Your task to perform on an android device: change text size in settings app Image 0: 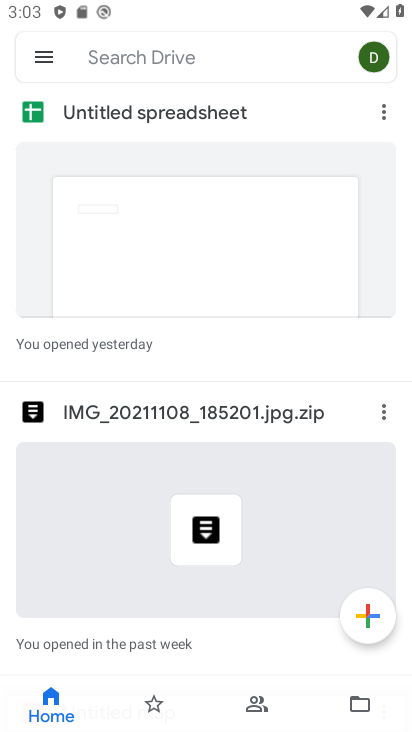
Step 0: press back button
Your task to perform on an android device: change text size in settings app Image 1: 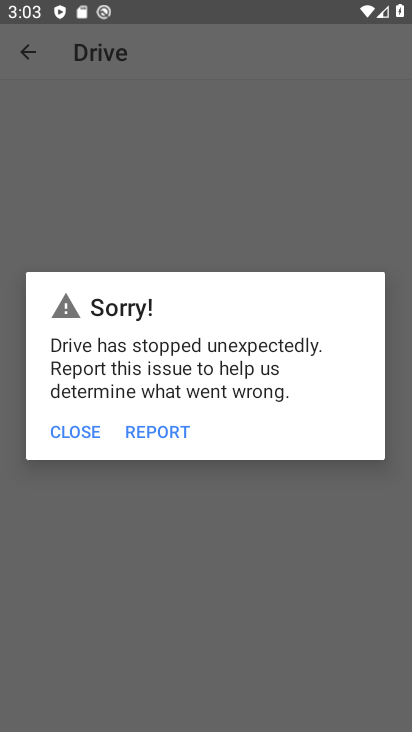
Step 1: click (70, 433)
Your task to perform on an android device: change text size in settings app Image 2: 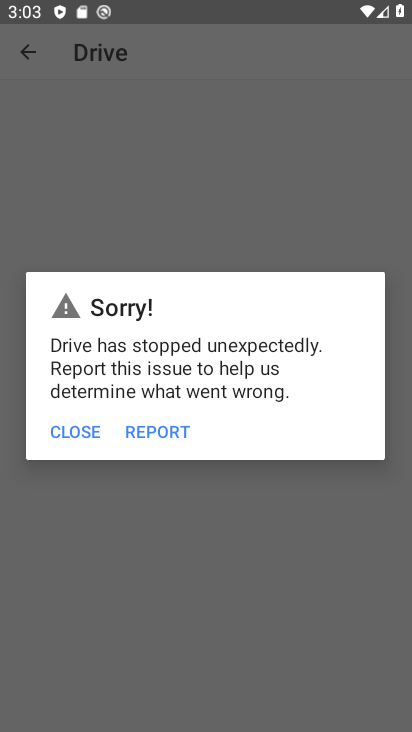
Step 2: click (70, 433)
Your task to perform on an android device: change text size in settings app Image 3: 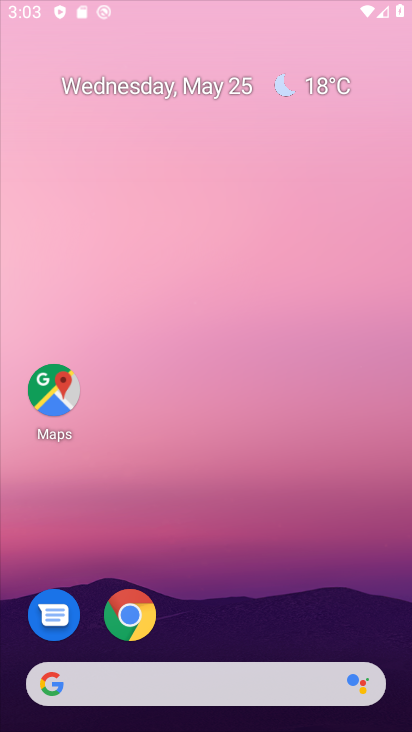
Step 3: click (68, 430)
Your task to perform on an android device: change text size in settings app Image 4: 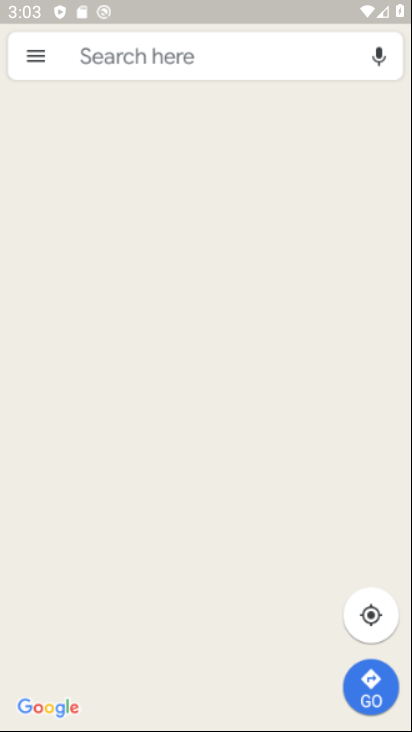
Step 4: drag from (264, 560) to (176, 213)
Your task to perform on an android device: change text size in settings app Image 5: 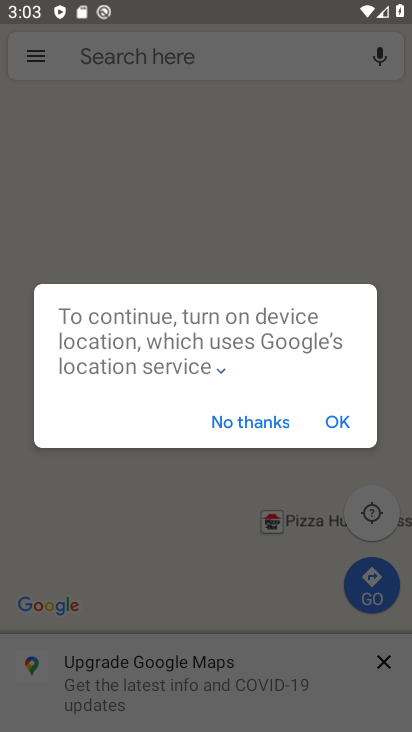
Step 5: click (335, 419)
Your task to perform on an android device: change text size in settings app Image 6: 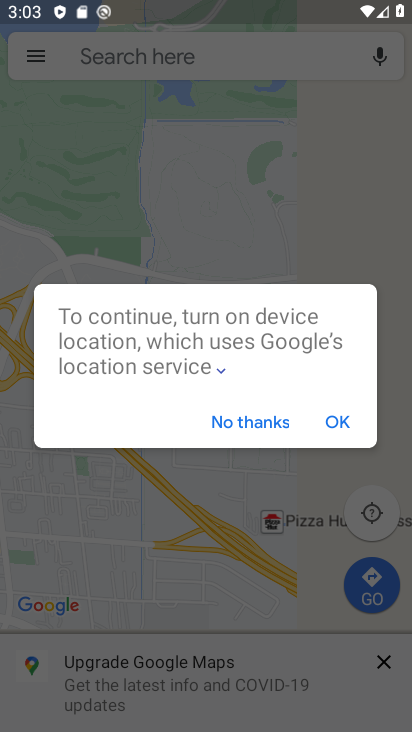
Step 6: drag from (337, 419) to (382, 420)
Your task to perform on an android device: change text size in settings app Image 7: 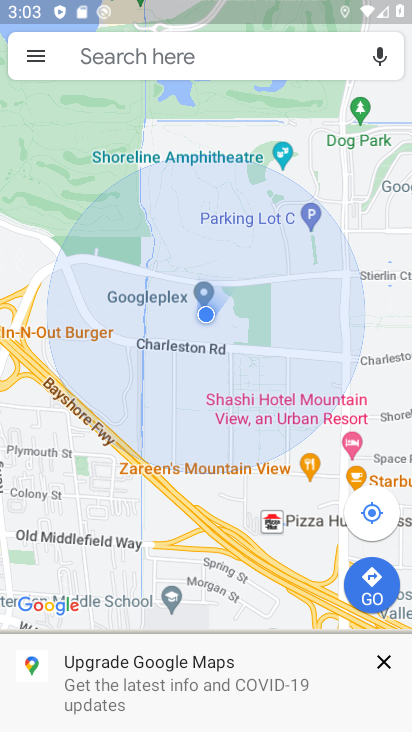
Step 7: press back button
Your task to perform on an android device: change text size in settings app Image 8: 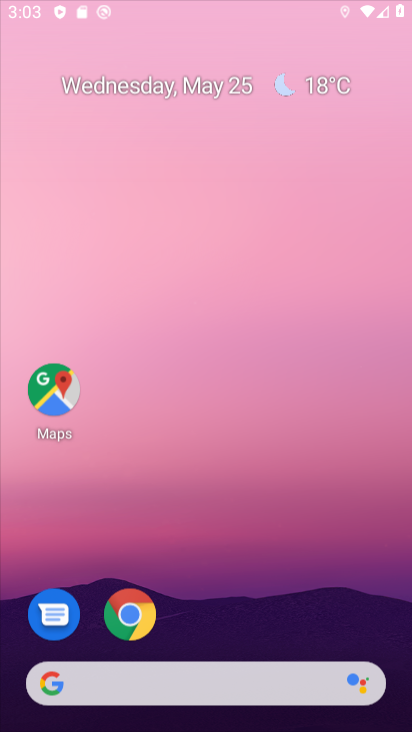
Step 8: press home button
Your task to perform on an android device: change text size in settings app Image 9: 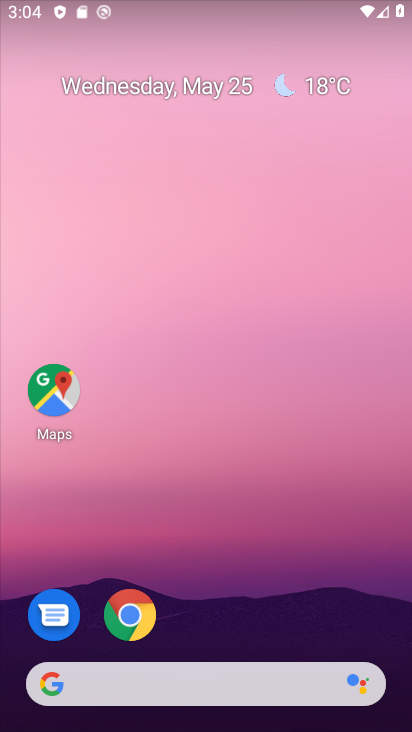
Step 9: drag from (239, 699) to (133, 46)
Your task to perform on an android device: change text size in settings app Image 10: 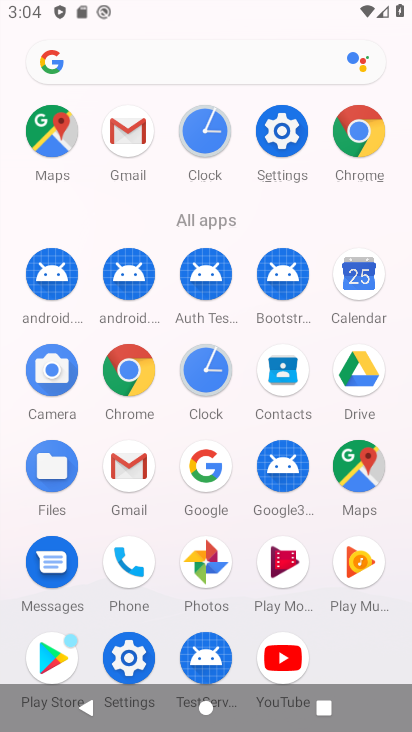
Step 10: click (273, 135)
Your task to perform on an android device: change text size in settings app Image 11: 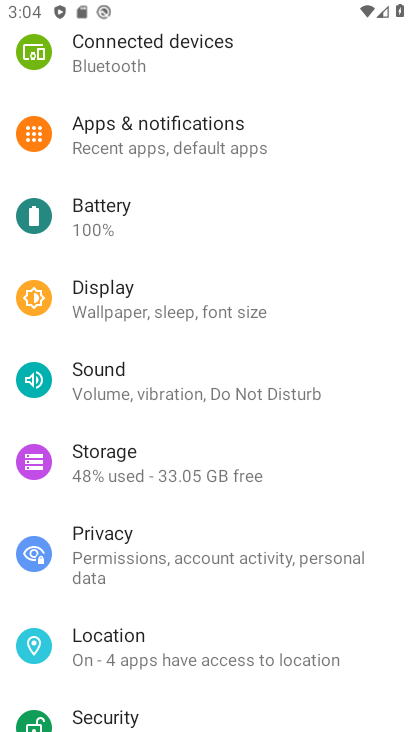
Step 11: drag from (157, 497) to (154, 151)
Your task to perform on an android device: change text size in settings app Image 12: 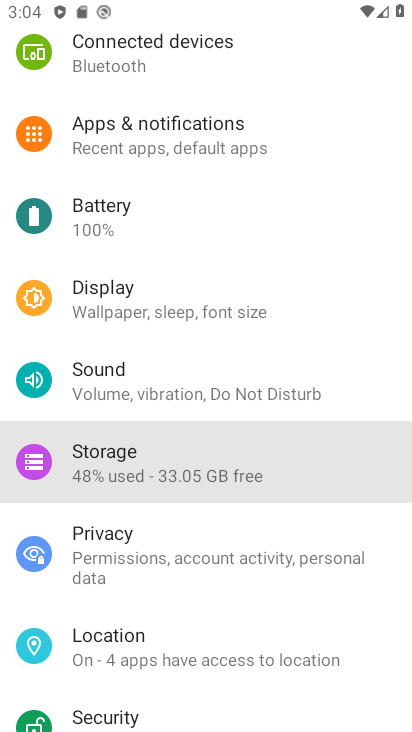
Step 12: drag from (190, 426) to (163, 128)
Your task to perform on an android device: change text size in settings app Image 13: 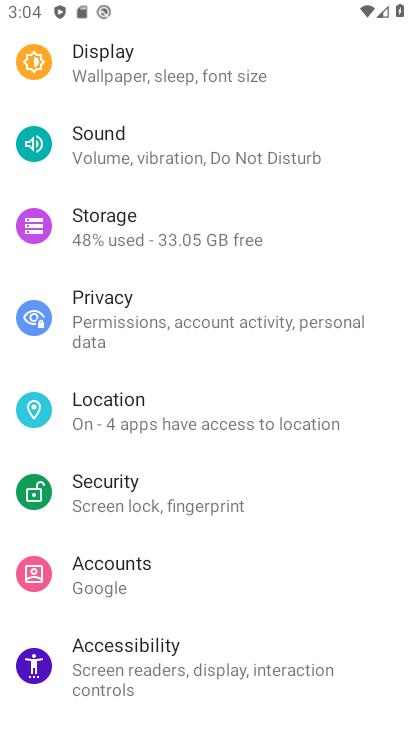
Step 13: drag from (123, 221) to (248, 561)
Your task to perform on an android device: change text size in settings app Image 14: 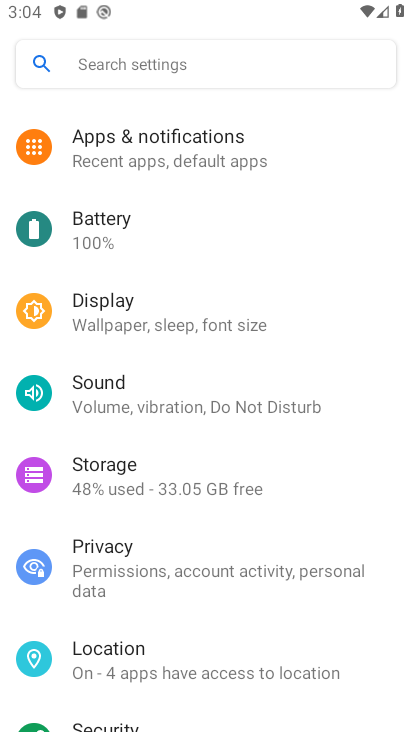
Step 14: drag from (208, 287) to (208, 586)
Your task to perform on an android device: change text size in settings app Image 15: 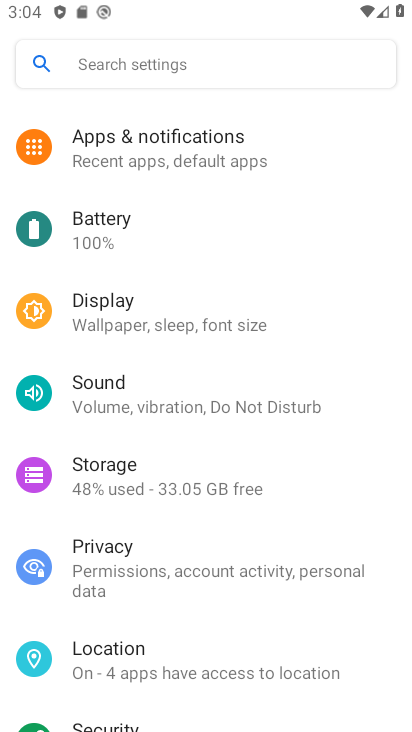
Step 15: drag from (174, 269) to (222, 631)
Your task to perform on an android device: change text size in settings app Image 16: 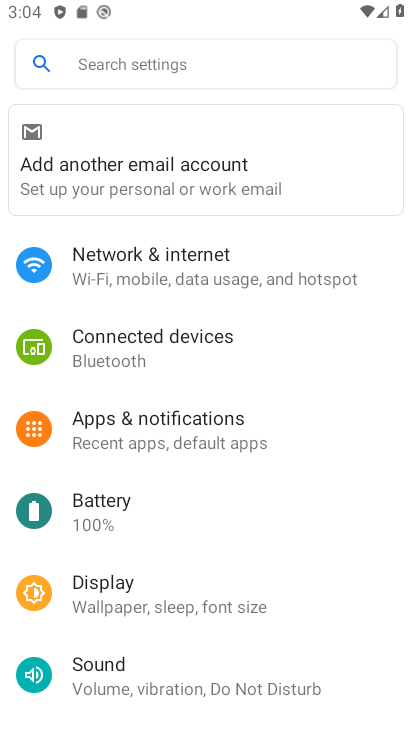
Step 16: drag from (120, 269) to (125, 708)
Your task to perform on an android device: change text size in settings app Image 17: 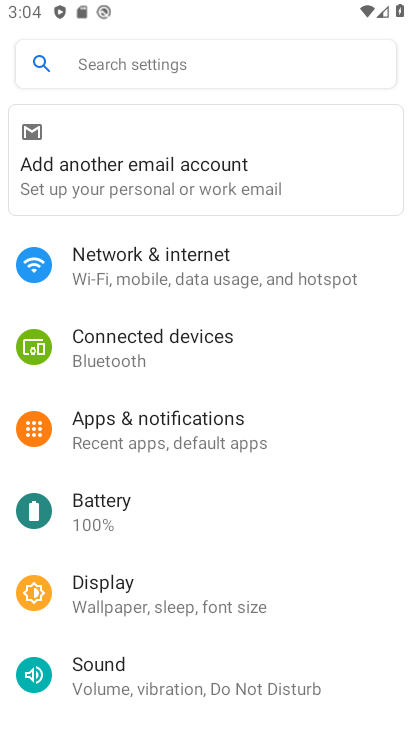
Step 17: drag from (131, 331) to (273, 730)
Your task to perform on an android device: change text size in settings app Image 18: 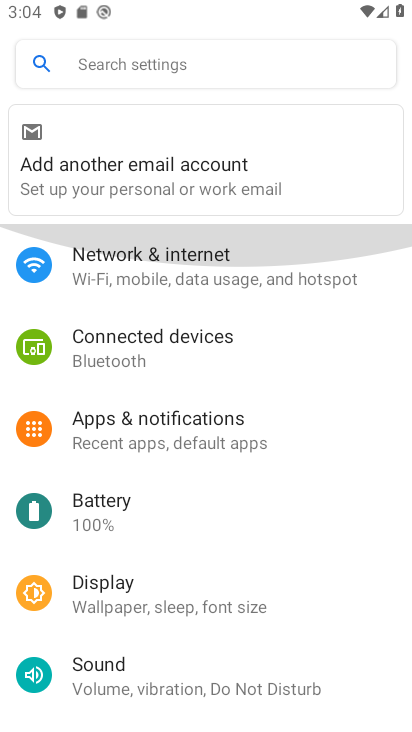
Step 18: drag from (188, 387) to (227, 647)
Your task to perform on an android device: change text size in settings app Image 19: 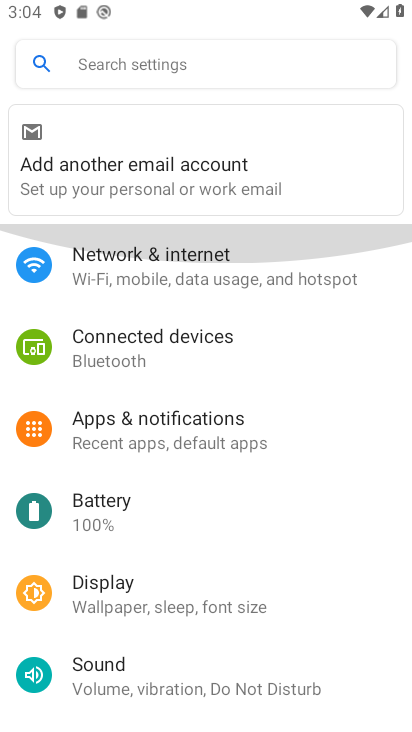
Step 19: drag from (218, 352) to (211, 578)
Your task to perform on an android device: change text size in settings app Image 20: 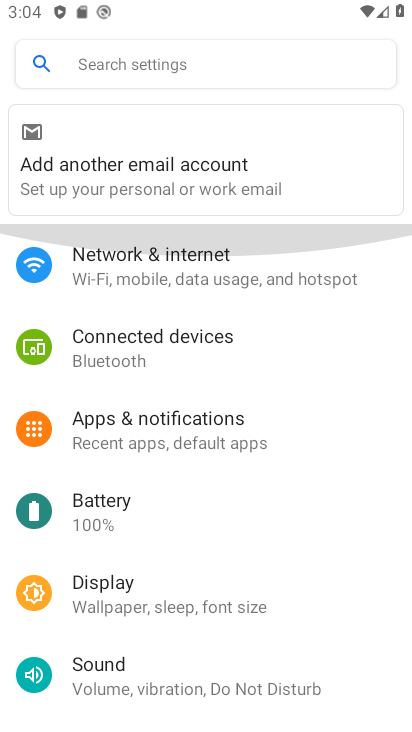
Step 20: drag from (190, 703) to (199, 596)
Your task to perform on an android device: change text size in settings app Image 21: 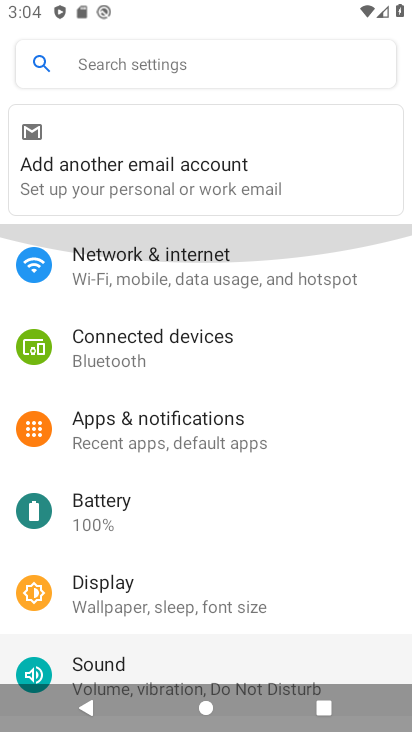
Step 21: drag from (202, 303) to (228, 480)
Your task to perform on an android device: change text size in settings app Image 22: 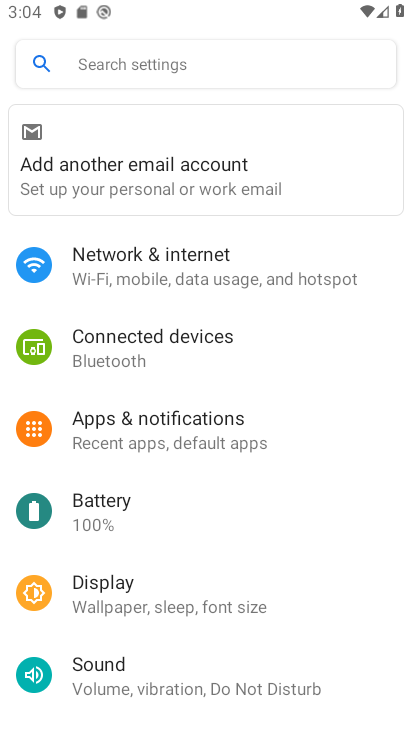
Step 22: drag from (157, 259) to (173, 47)
Your task to perform on an android device: change text size in settings app Image 23: 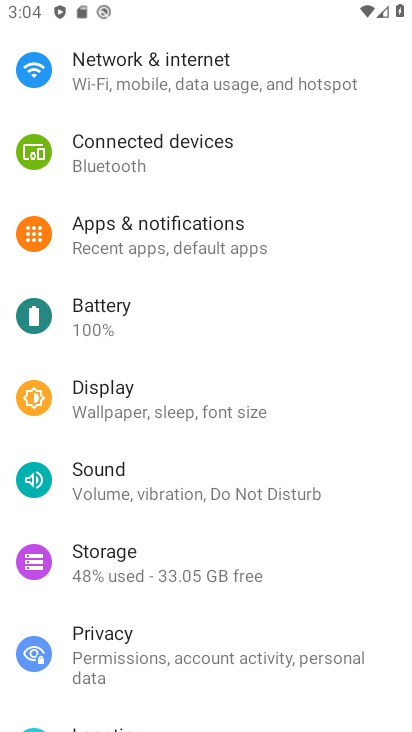
Step 23: drag from (158, 354) to (192, 484)
Your task to perform on an android device: change text size in settings app Image 24: 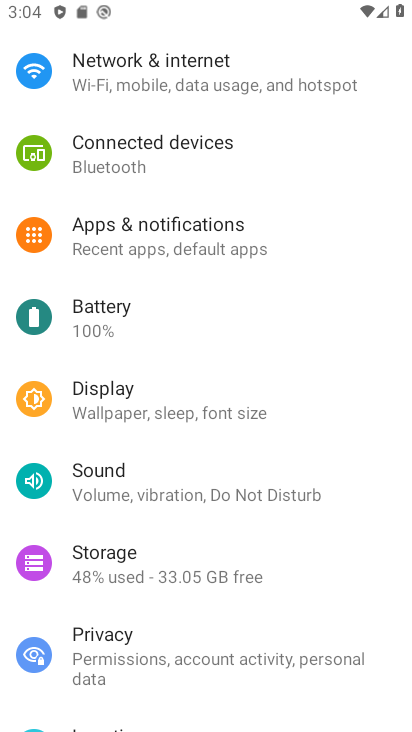
Step 24: drag from (167, 383) to (175, 515)
Your task to perform on an android device: change text size in settings app Image 25: 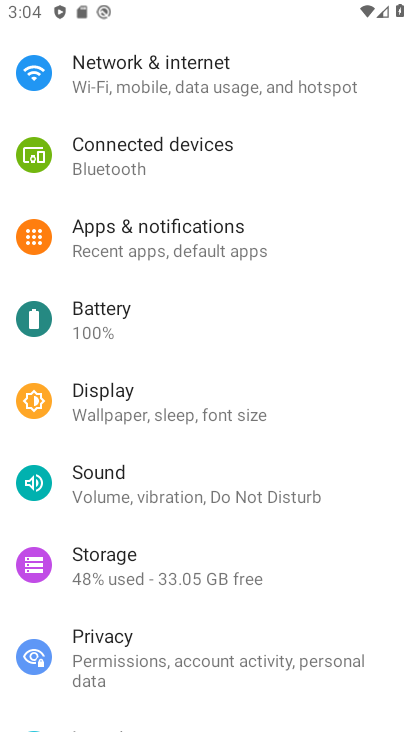
Step 25: drag from (131, 343) to (141, 507)
Your task to perform on an android device: change text size in settings app Image 26: 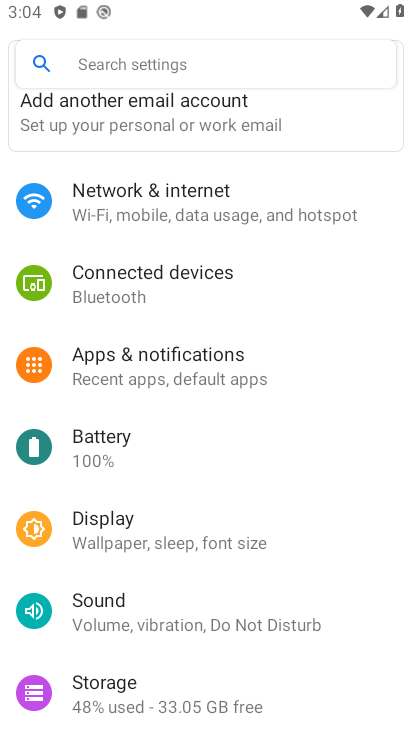
Step 26: drag from (128, 342) to (123, 637)
Your task to perform on an android device: change text size in settings app Image 27: 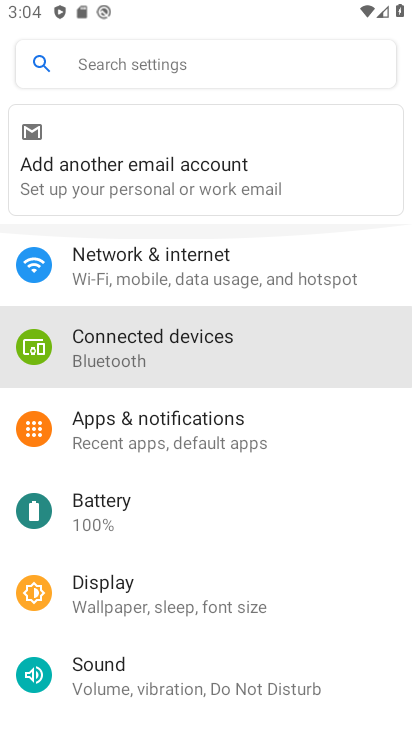
Step 27: drag from (104, 389) to (169, 602)
Your task to perform on an android device: change text size in settings app Image 28: 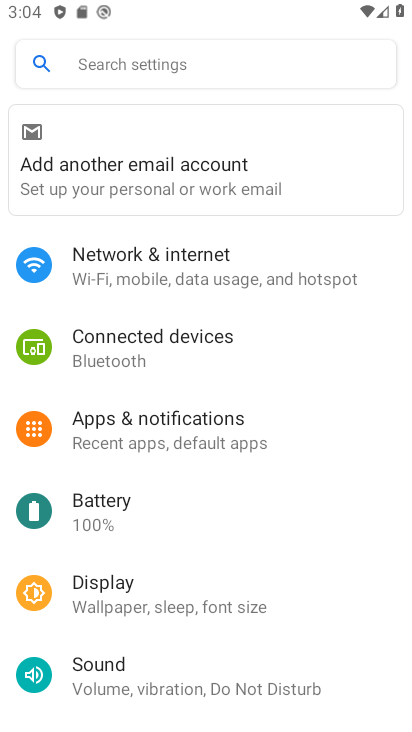
Step 28: drag from (186, 603) to (234, 271)
Your task to perform on an android device: change text size in settings app Image 29: 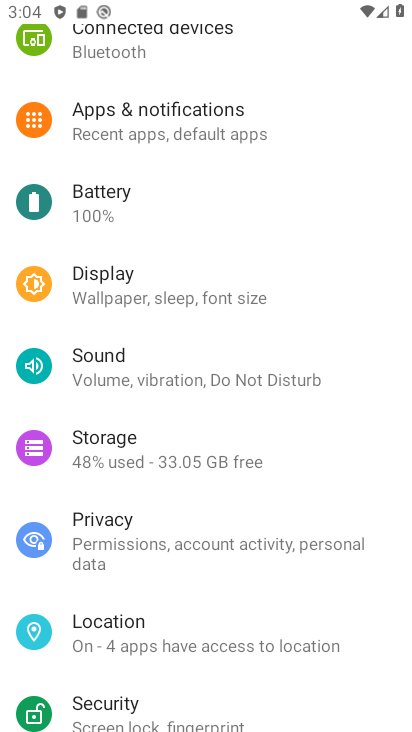
Step 29: drag from (244, 483) to (203, 230)
Your task to perform on an android device: change text size in settings app Image 30: 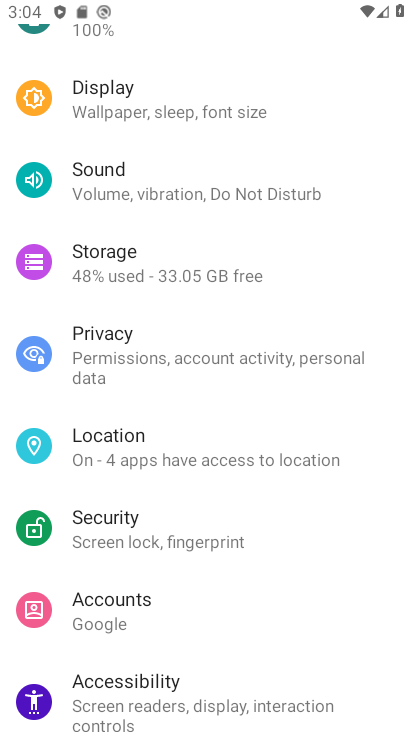
Step 30: drag from (225, 255) to (236, 513)
Your task to perform on an android device: change text size in settings app Image 31: 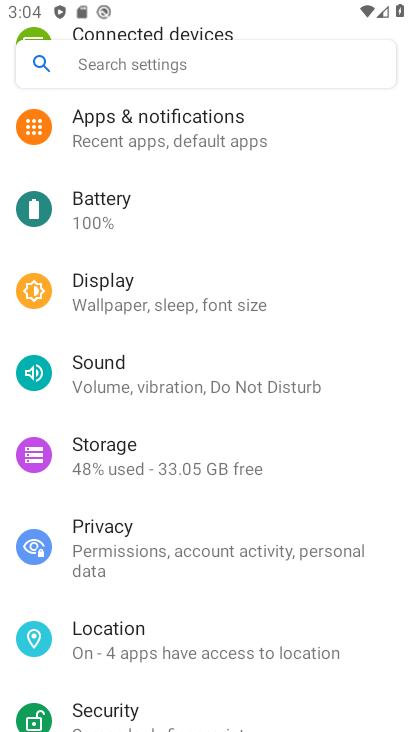
Step 31: drag from (166, 228) to (189, 526)
Your task to perform on an android device: change text size in settings app Image 32: 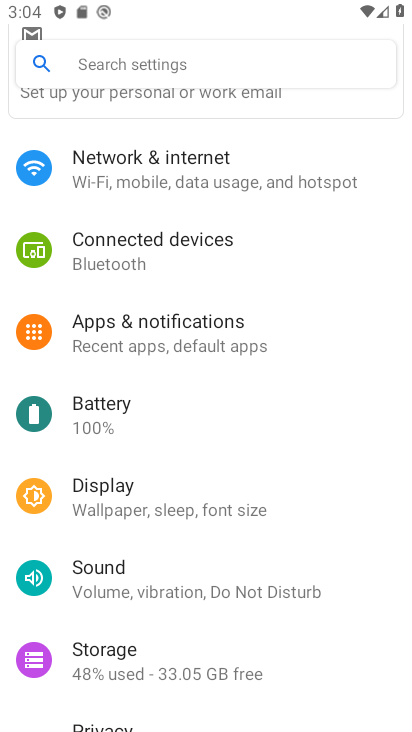
Step 32: click (114, 492)
Your task to perform on an android device: change text size in settings app Image 33: 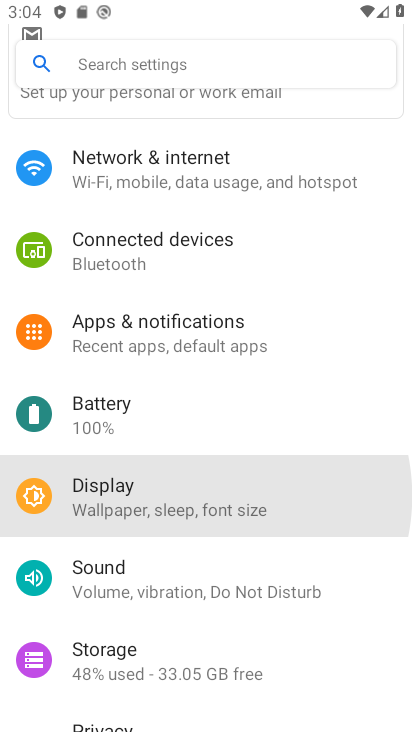
Step 33: click (114, 492)
Your task to perform on an android device: change text size in settings app Image 34: 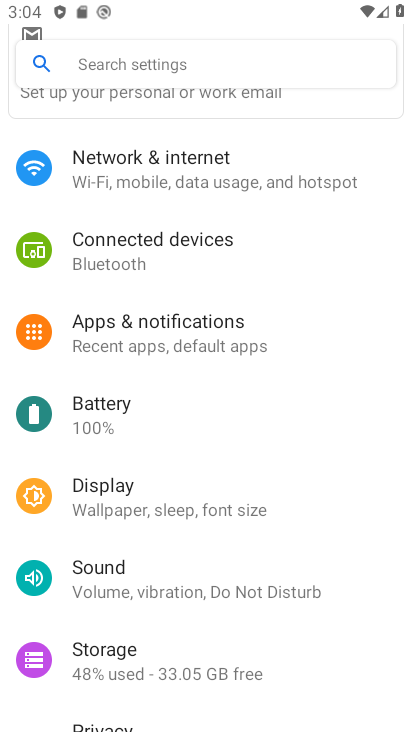
Step 34: click (120, 492)
Your task to perform on an android device: change text size in settings app Image 35: 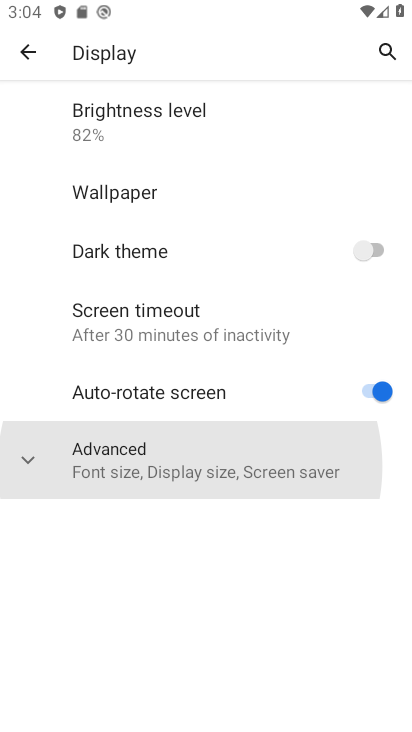
Step 35: click (128, 499)
Your task to perform on an android device: change text size in settings app Image 36: 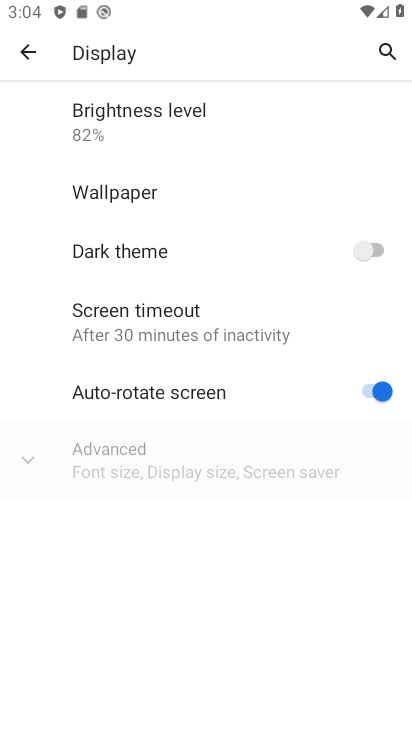
Step 36: click (128, 498)
Your task to perform on an android device: change text size in settings app Image 37: 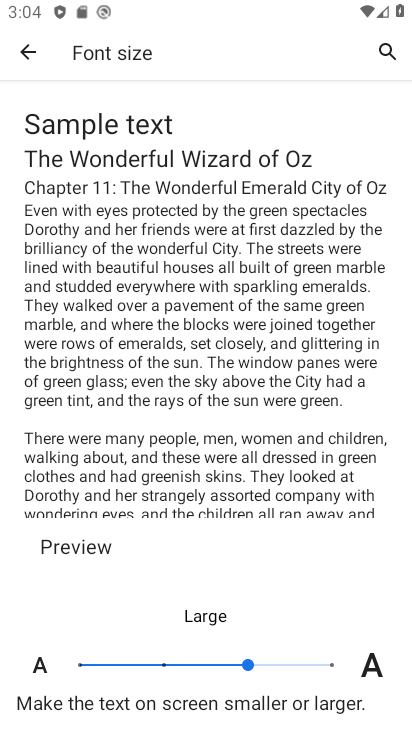
Step 37: click (168, 664)
Your task to perform on an android device: change text size in settings app Image 38: 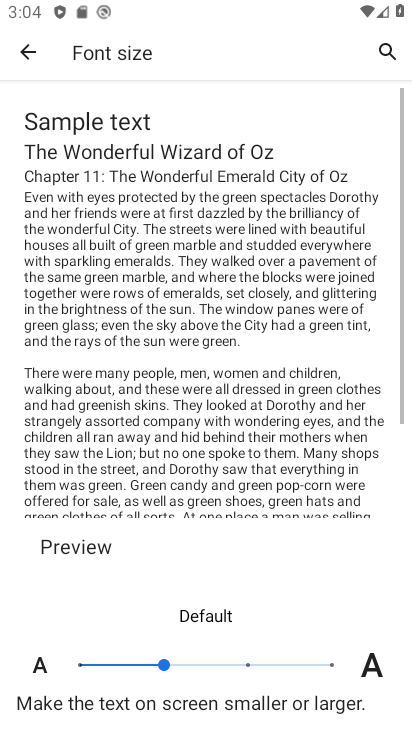
Step 38: click (168, 664)
Your task to perform on an android device: change text size in settings app Image 39: 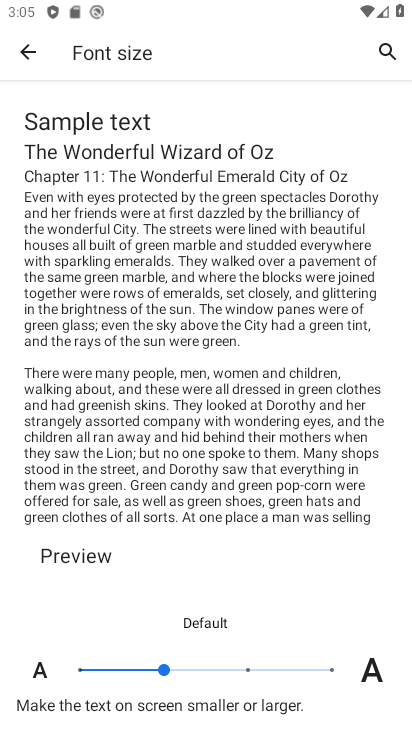
Step 39: task complete